Your task to perform on an android device: open a bookmark in the chrome app Image 0: 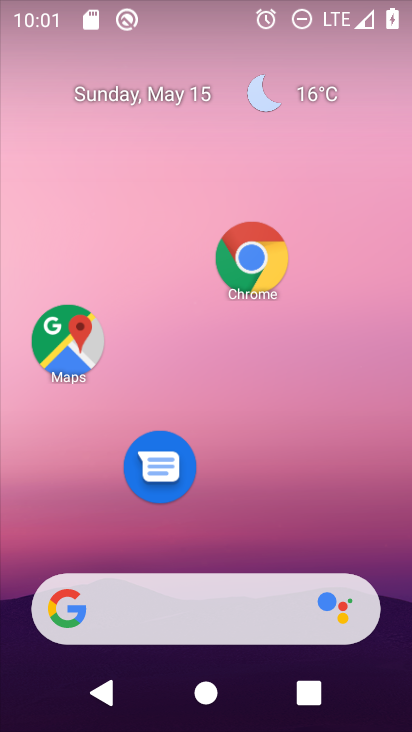
Step 0: click (254, 252)
Your task to perform on an android device: open a bookmark in the chrome app Image 1: 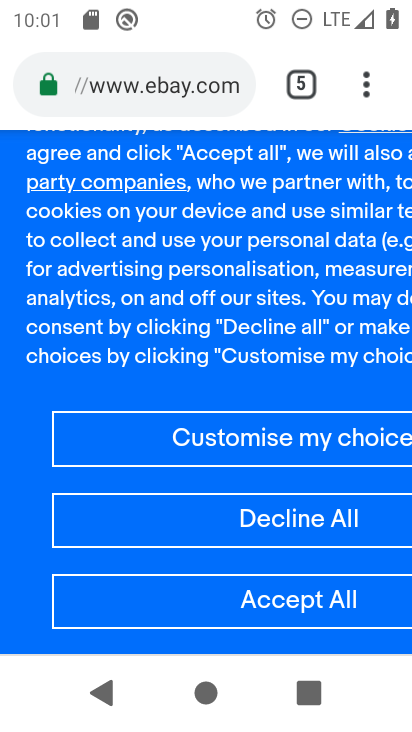
Step 1: click (383, 85)
Your task to perform on an android device: open a bookmark in the chrome app Image 2: 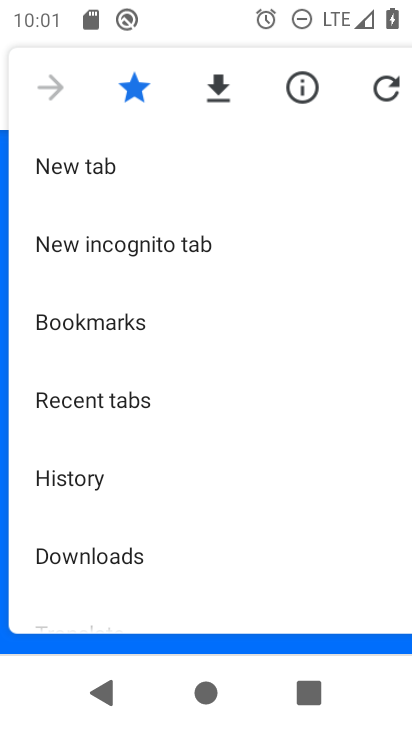
Step 2: click (92, 331)
Your task to perform on an android device: open a bookmark in the chrome app Image 3: 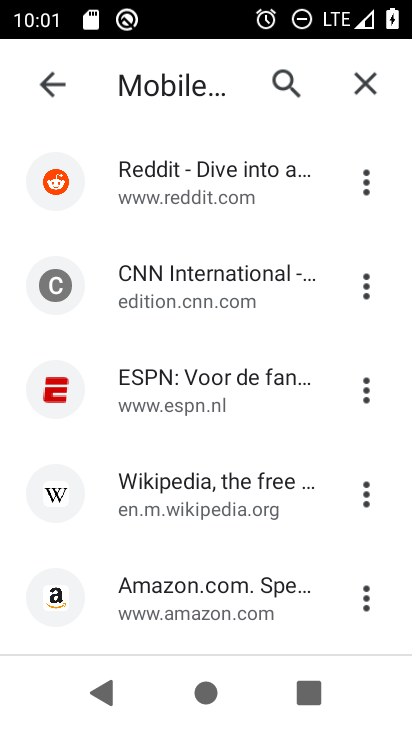
Step 3: click (136, 318)
Your task to perform on an android device: open a bookmark in the chrome app Image 4: 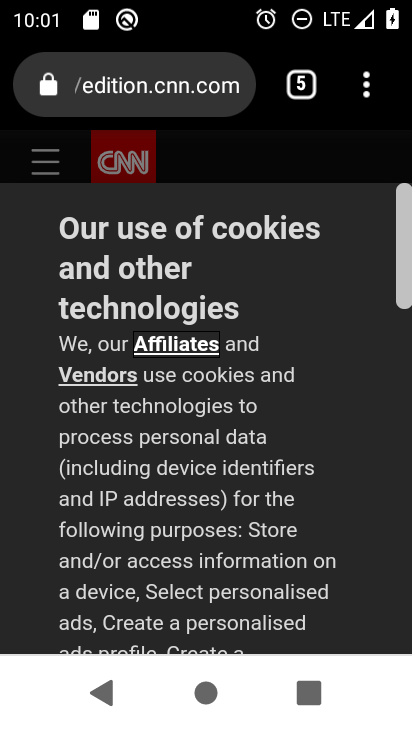
Step 4: task complete